Your task to perform on an android device: Open calendar and show me the third week of next month Image 0: 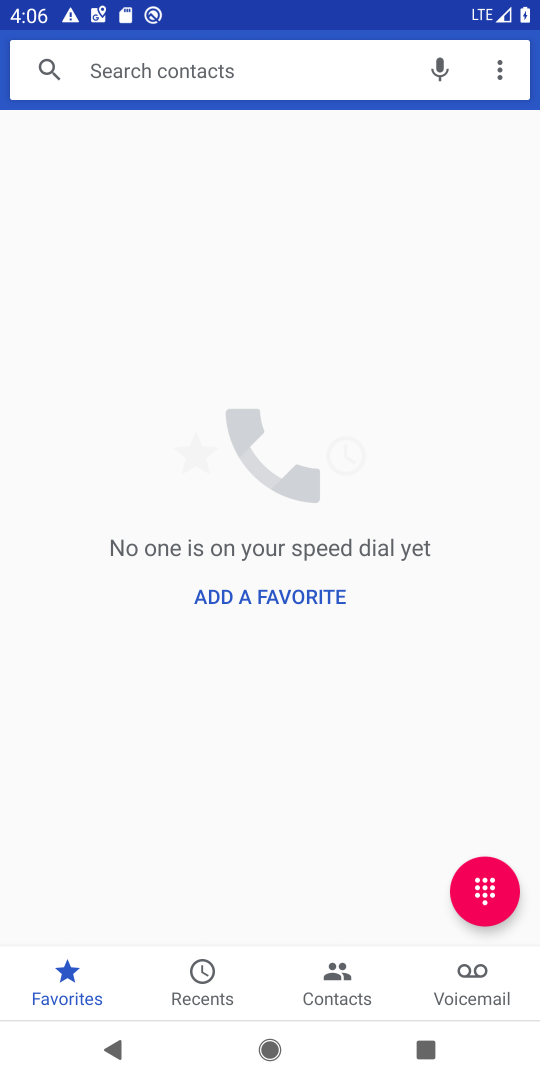
Step 0: press back button
Your task to perform on an android device: Open calendar and show me the third week of next month Image 1: 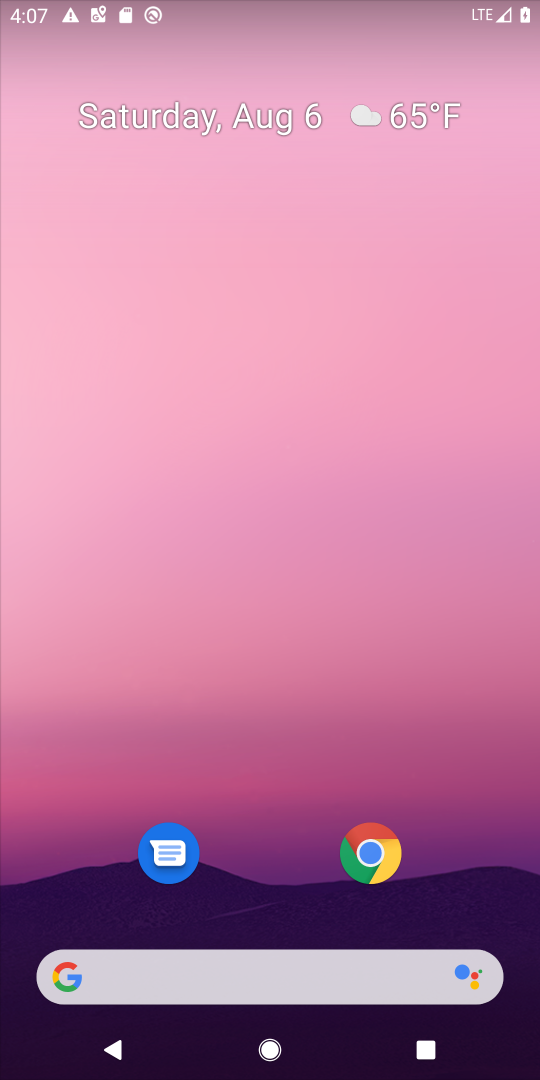
Step 1: drag from (264, 834) to (312, 185)
Your task to perform on an android device: Open calendar and show me the third week of next month Image 2: 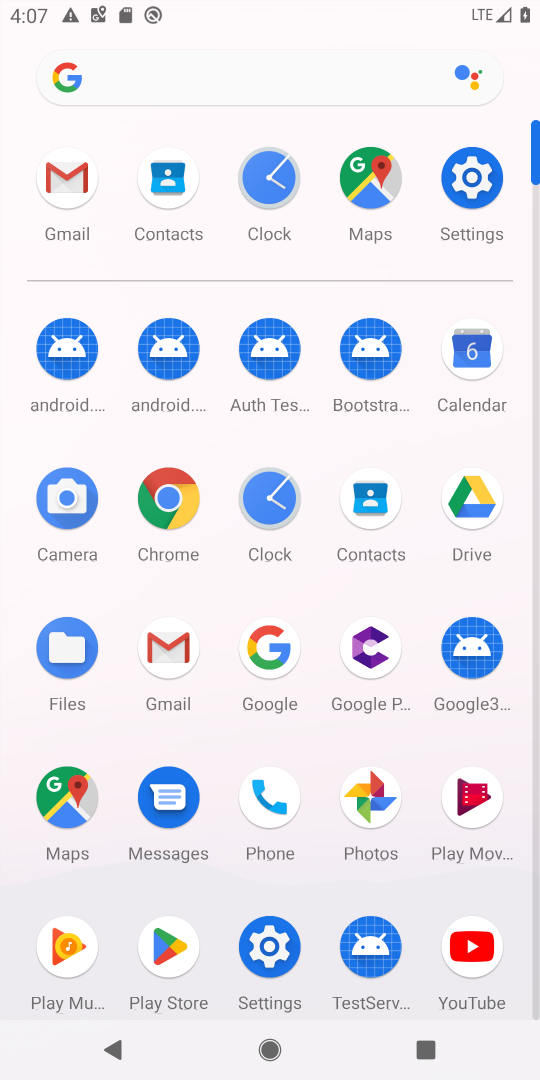
Step 2: click (460, 341)
Your task to perform on an android device: Open calendar and show me the third week of next month Image 3: 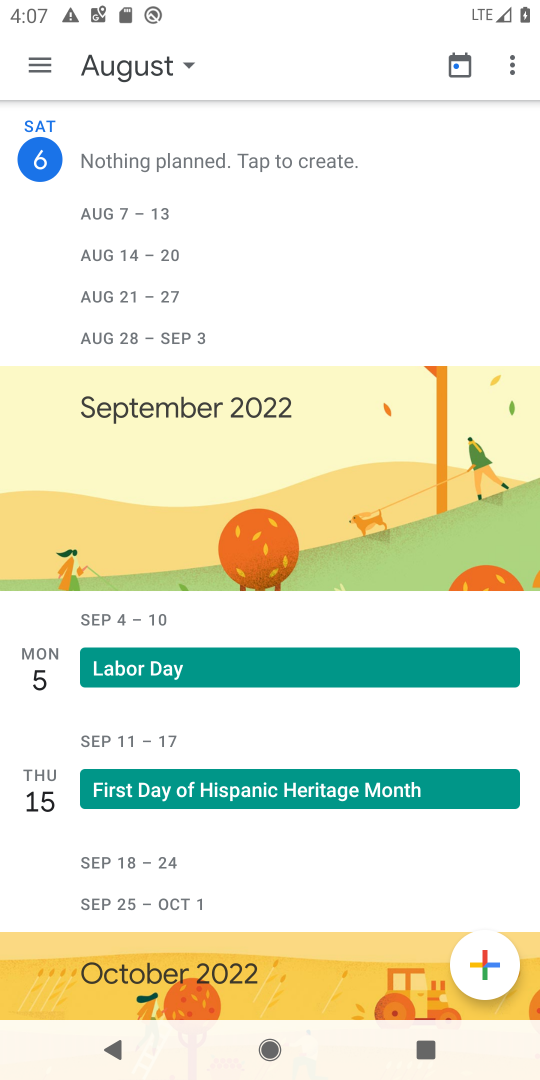
Step 3: click (162, 66)
Your task to perform on an android device: Open calendar and show me the third week of next month Image 4: 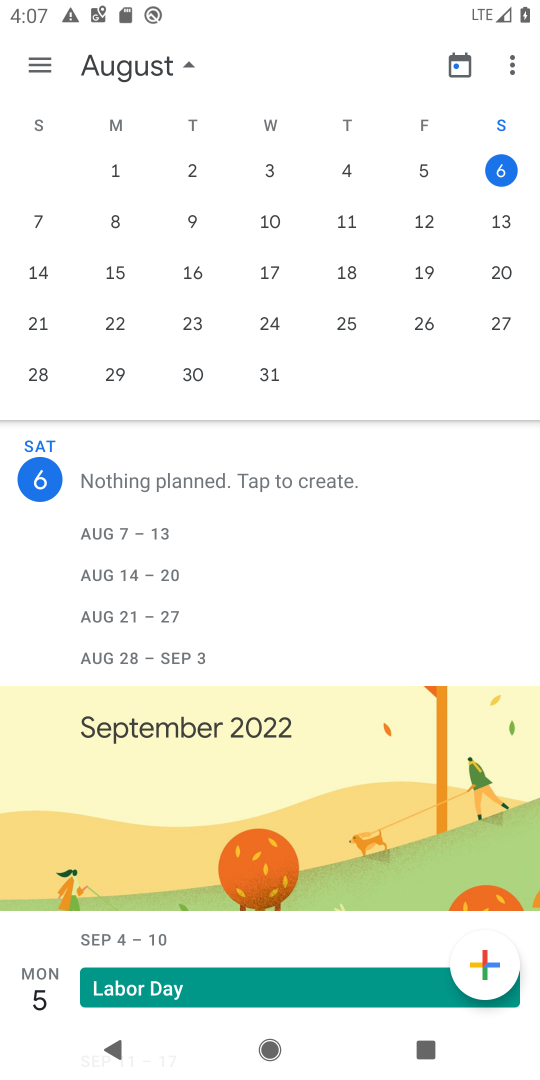
Step 4: drag from (502, 227) to (16, 287)
Your task to perform on an android device: Open calendar and show me the third week of next month Image 5: 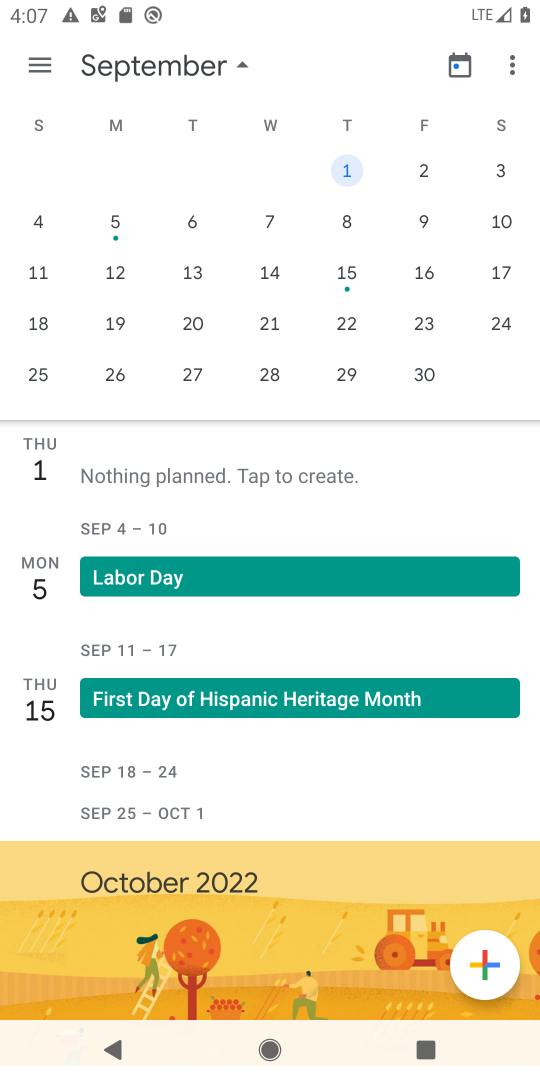
Step 5: click (106, 272)
Your task to perform on an android device: Open calendar and show me the third week of next month Image 6: 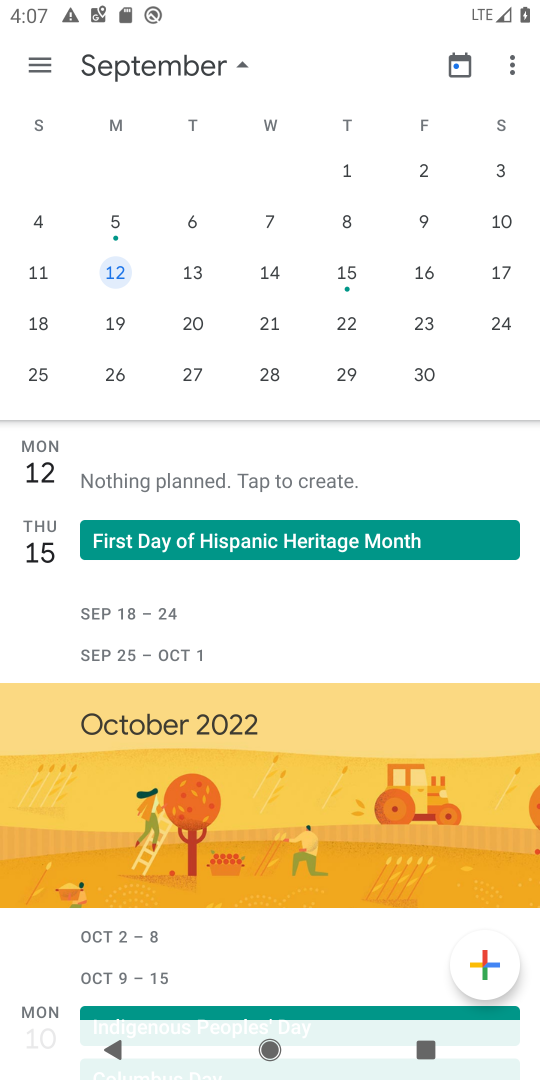
Step 6: task complete